Your task to perform on an android device: Search for a new lawnmower on Lowes.com Image 0: 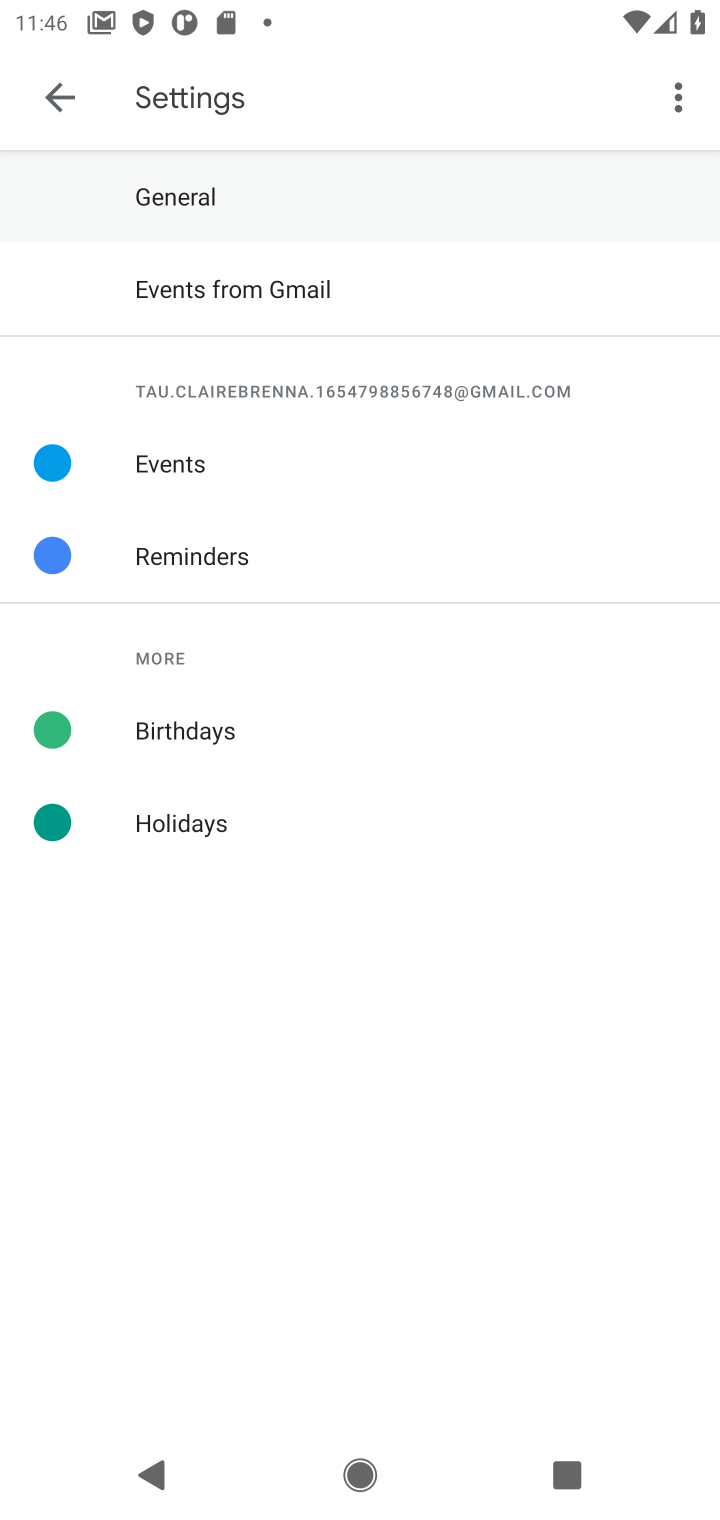
Step 0: press home button
Your task to perform on an android device: Search for a new lawnmower on Lowes.com Image 1: 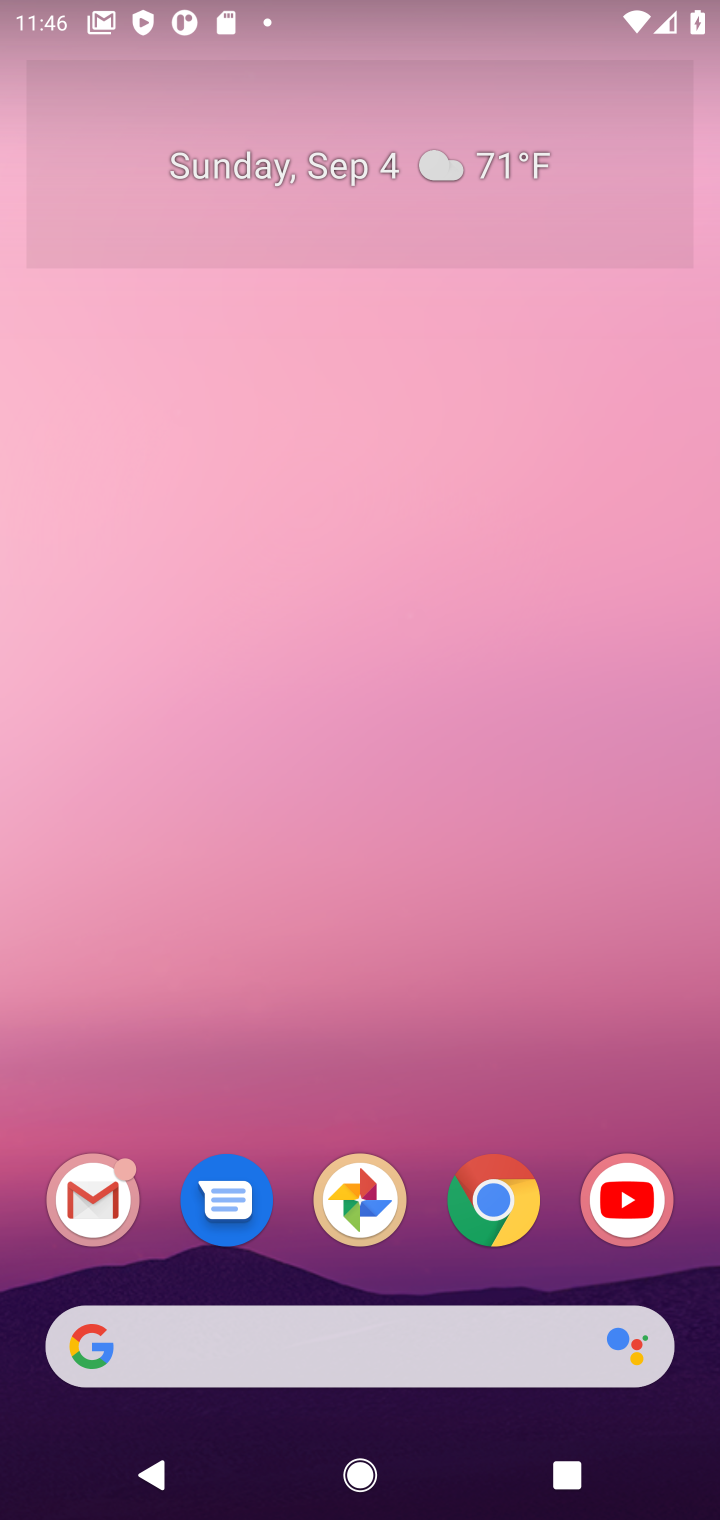
Step 1: click (506, 1175)
Your task to perform on an android device: Search for a new lawnmower on Lowes.com Image 2: 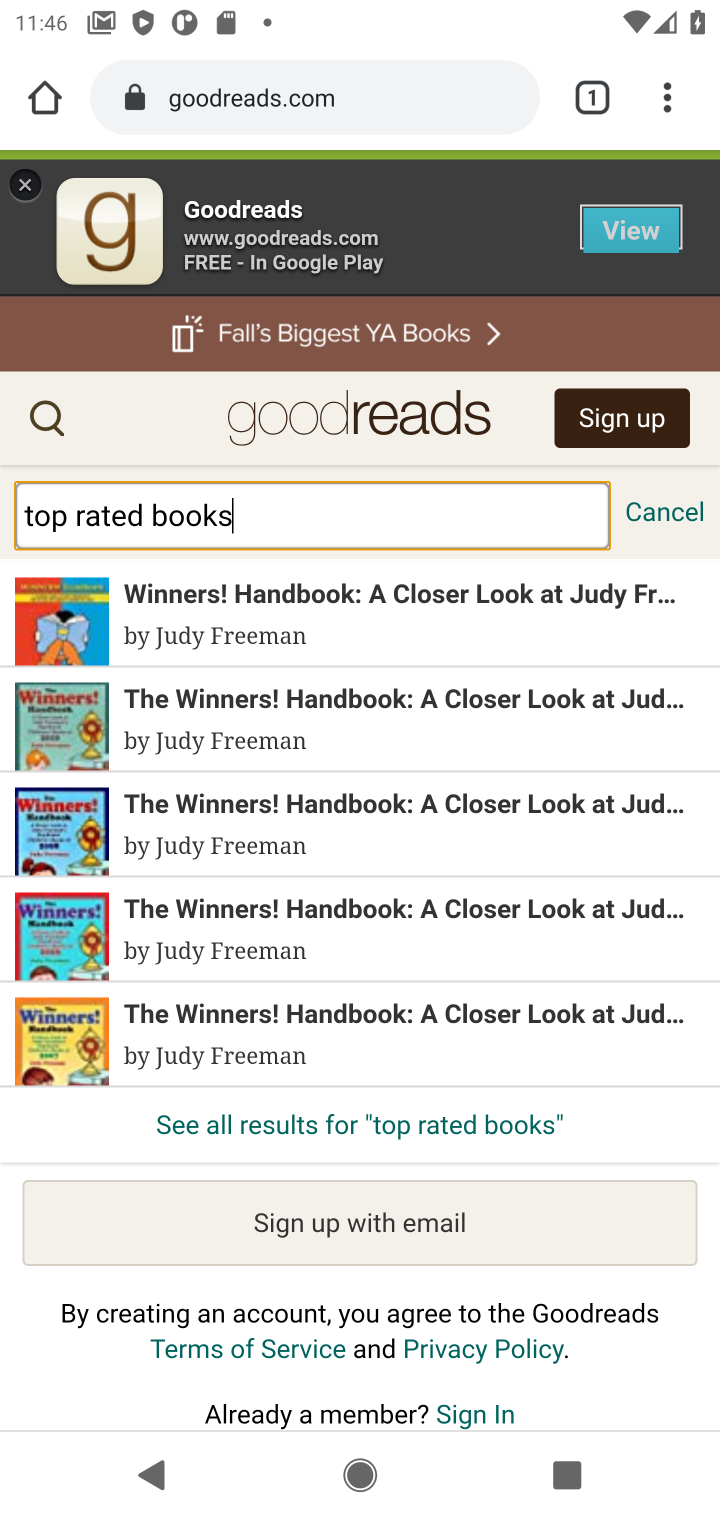
Step 2: click (374, 99)
Your task to perform on an android device: Search for a new lawnmower on Lowes.com Image 3: 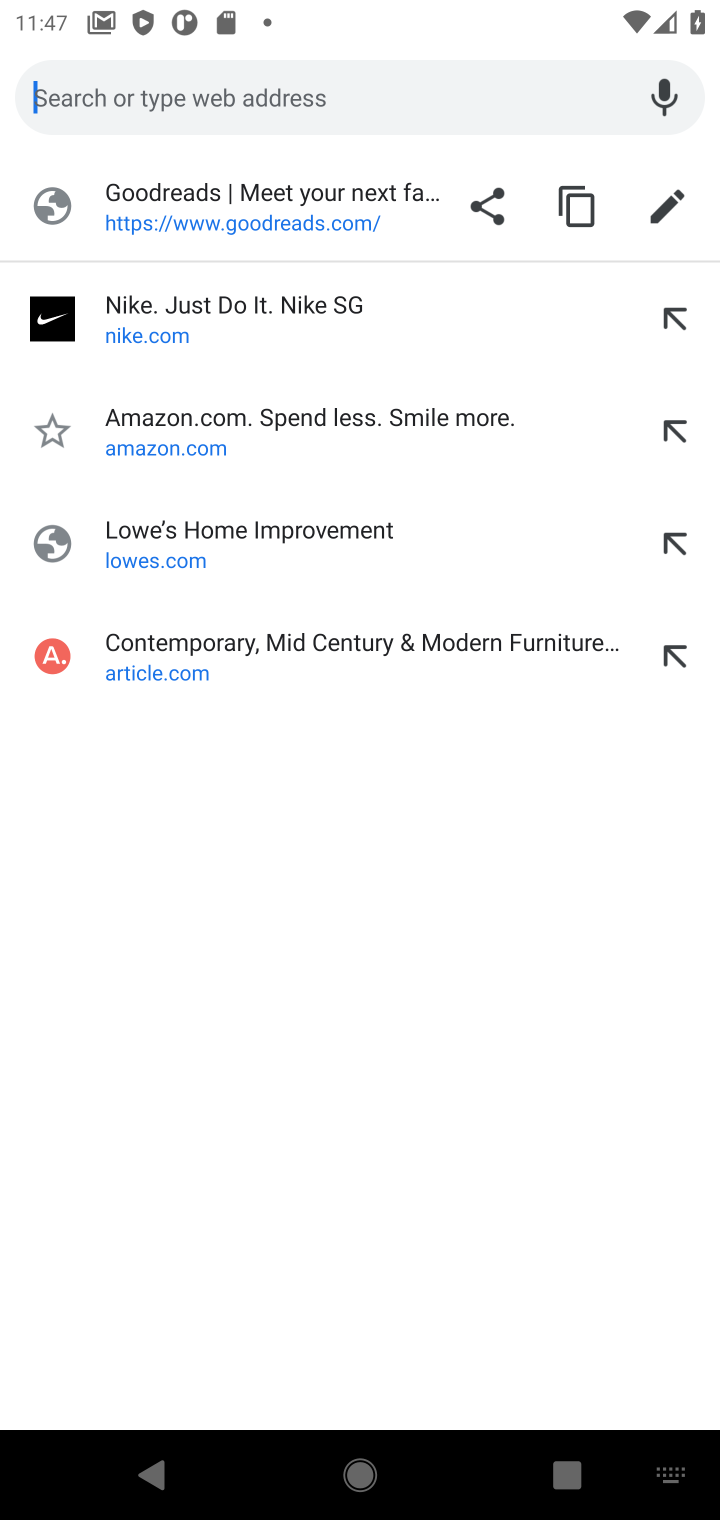
Step 3: type "lowes.com"
Your task to perform on an android device: Search for a new lawnmower on Lowes.com Image 4: 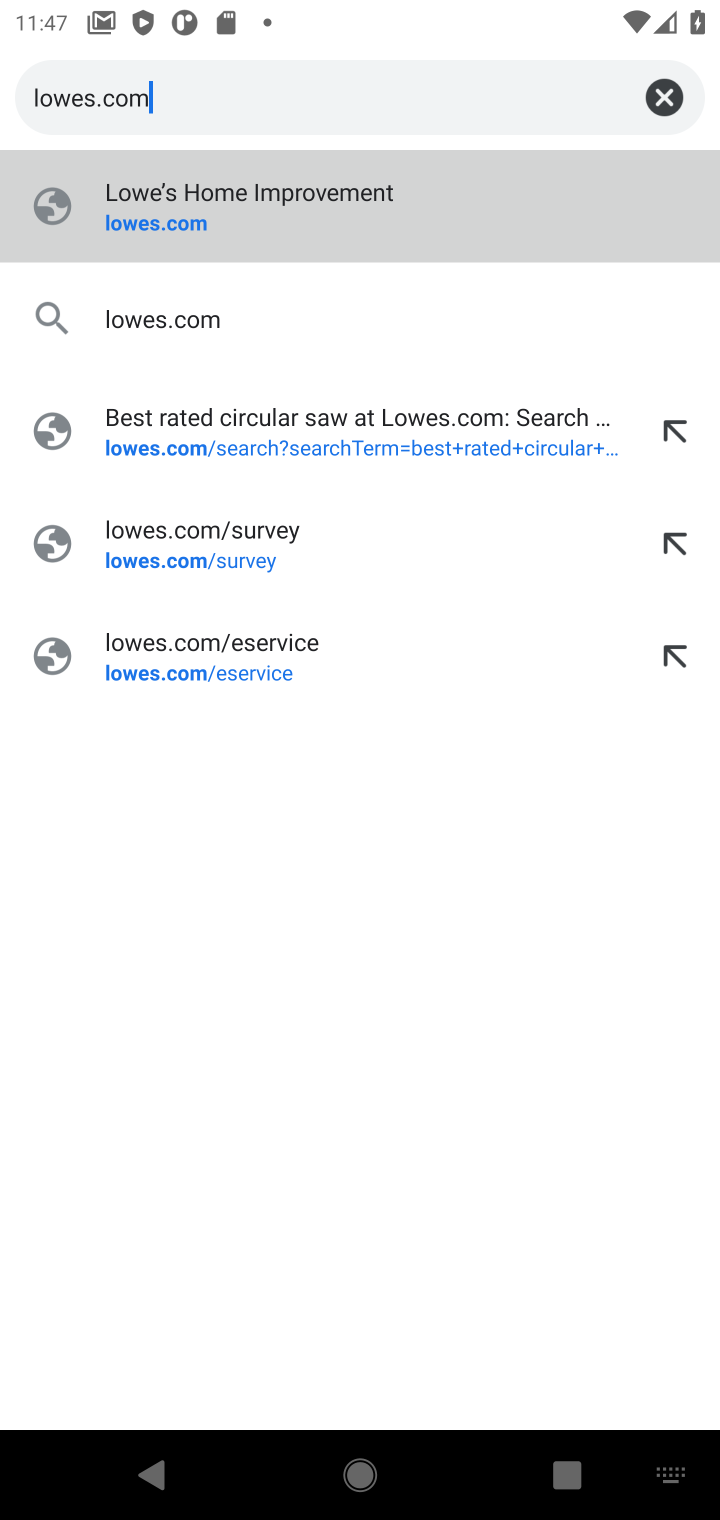
Step 4: click (594, 208)
Your task to perform on an android device: Search for a new lawnmower on Lowes.com Image 5: 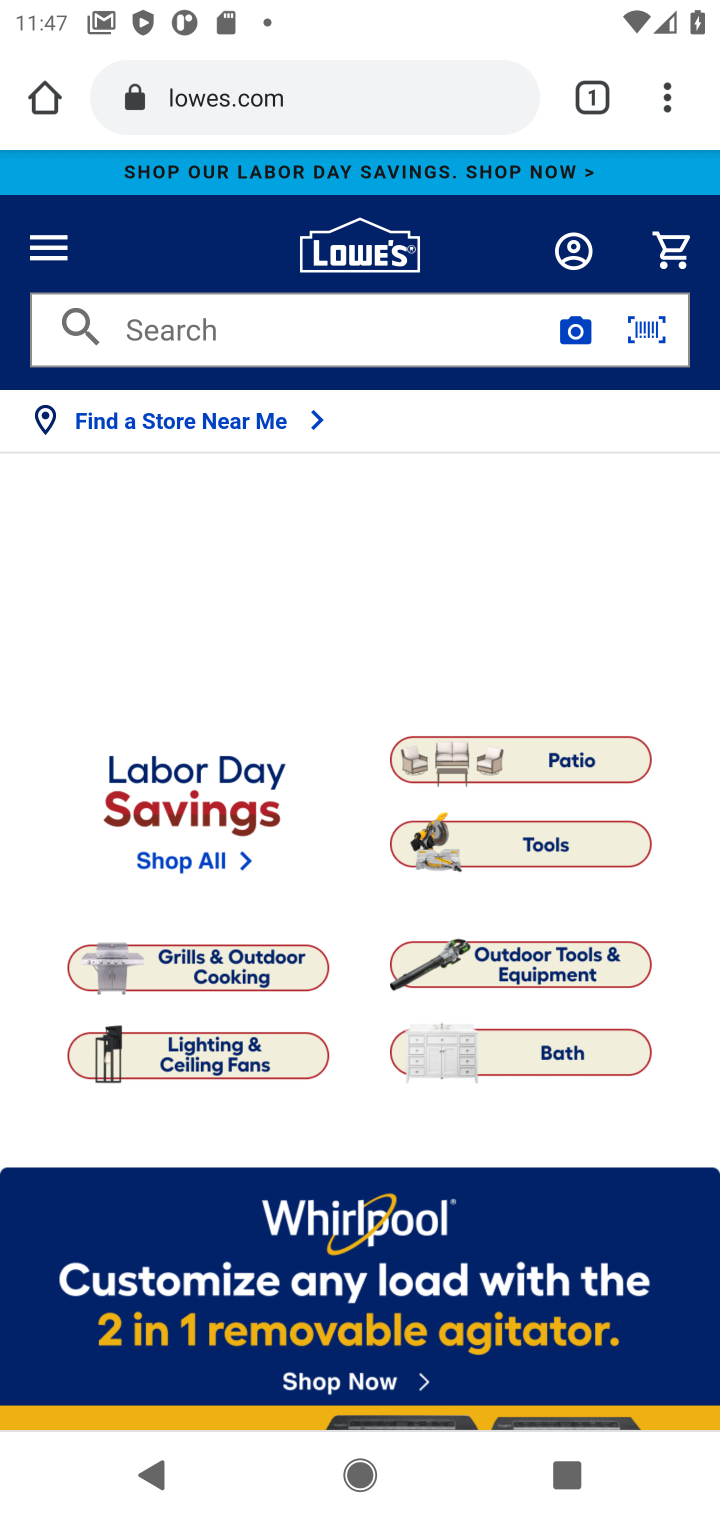
Step 5: click (441, 329)
Your task to perform on an android device: Search for a new lawnmower on Lowes.com Image 6: 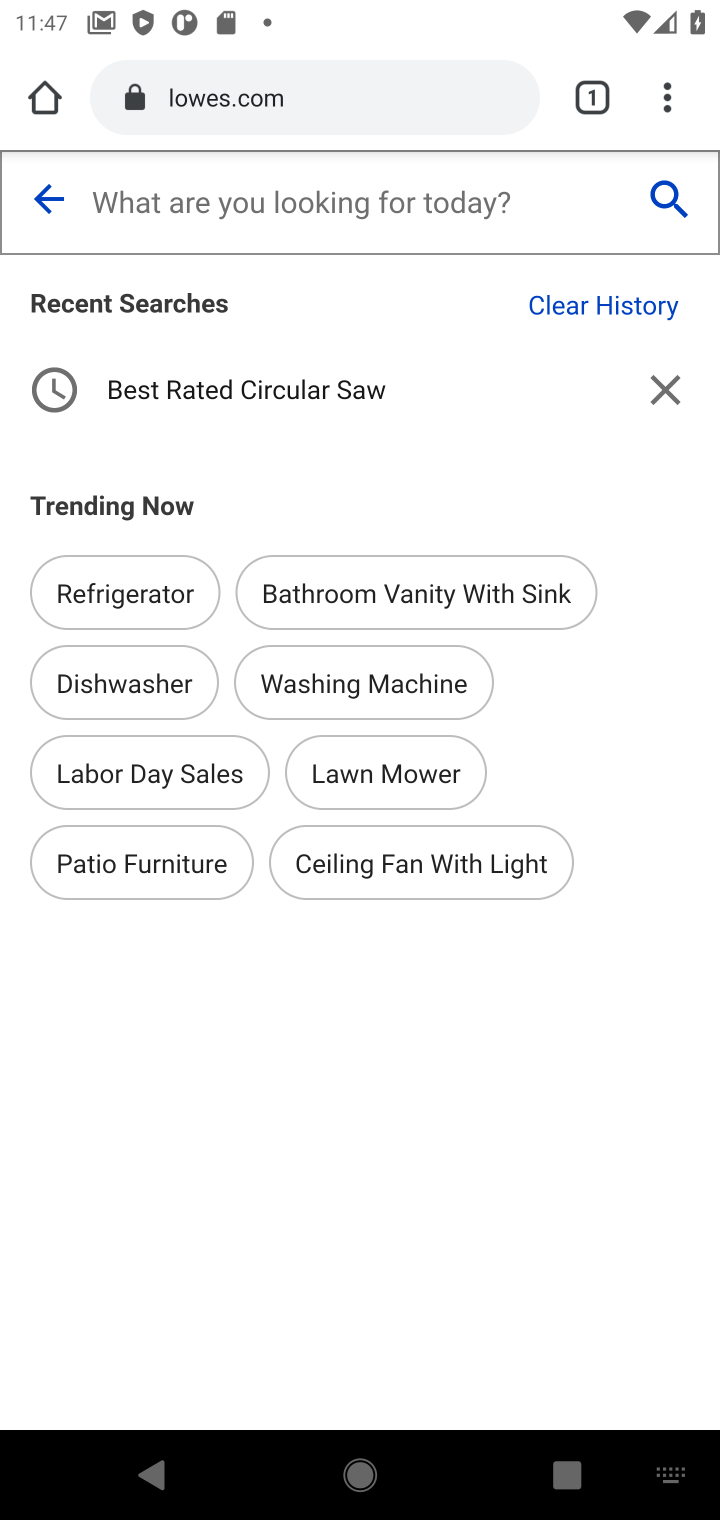
Step 6: type "new lawnmower"
Your task to perform on an android device: Search for a new lawnmower on Lowes.com Image 7: 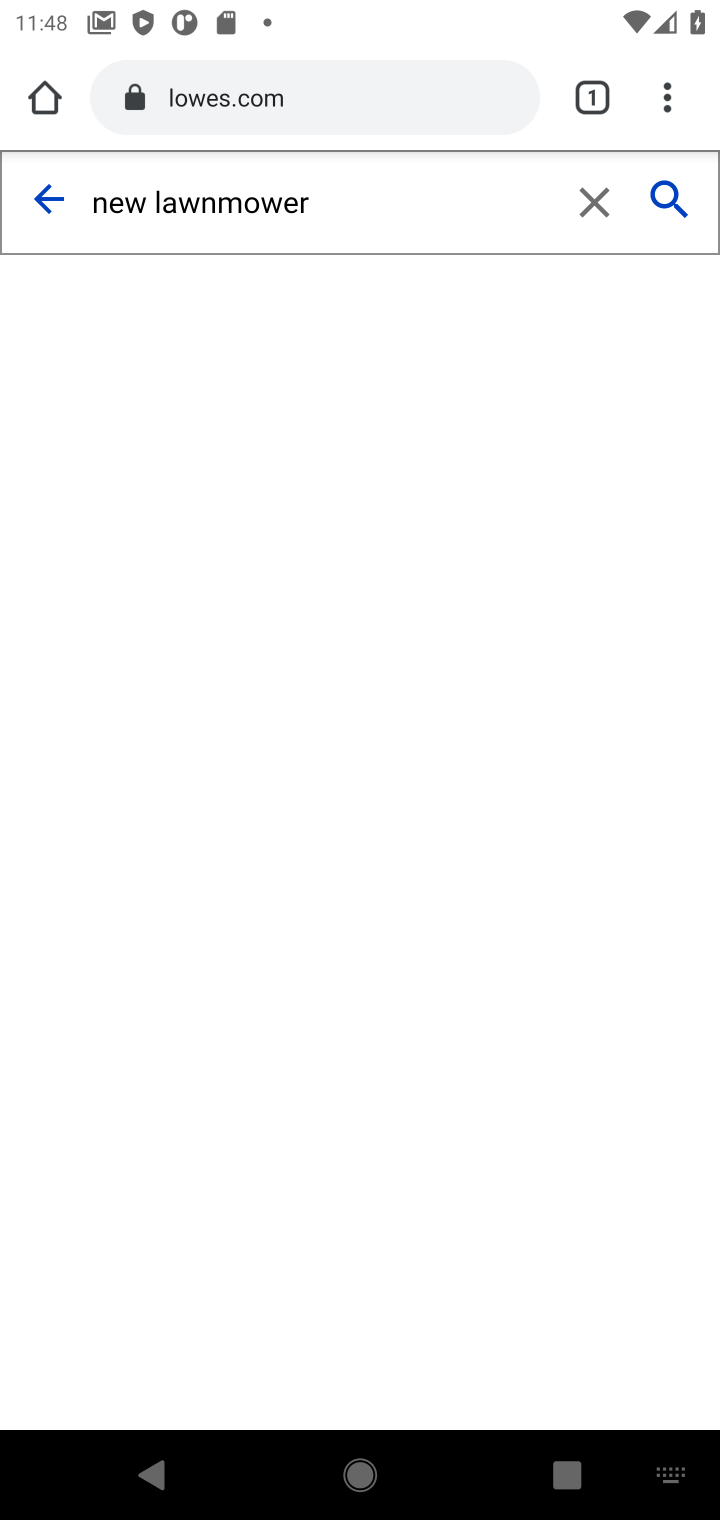
Step 7: click (660, 204)
Your task to perform on an android device: Search for a new lawnmower on Lowes.com Image 8: 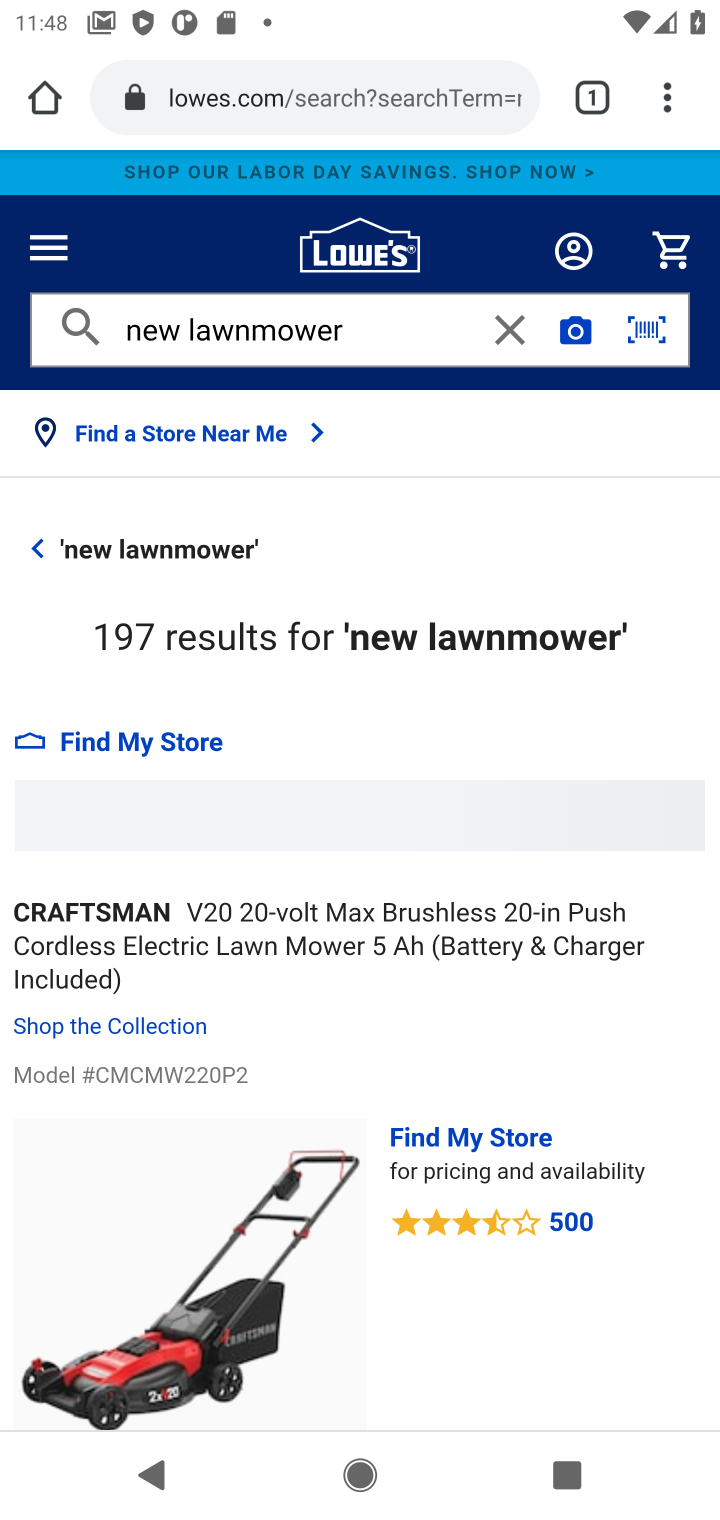
Step 8: task complete